Your task to perform on an android device: Open location settings Image 0: 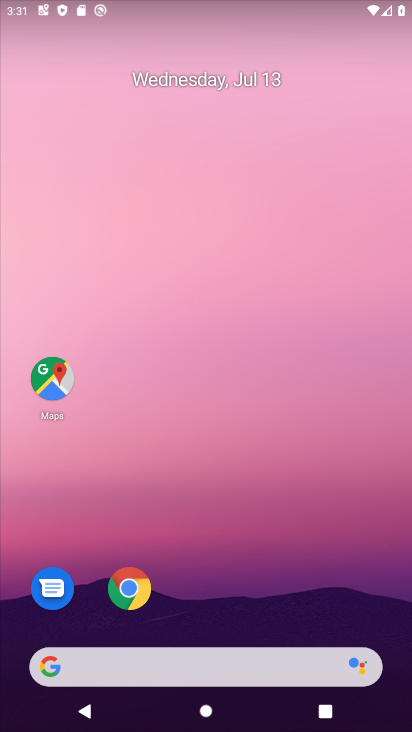
Step 0: click (254, 186)
Your task to perform on an android device: Open location settings Image 1: 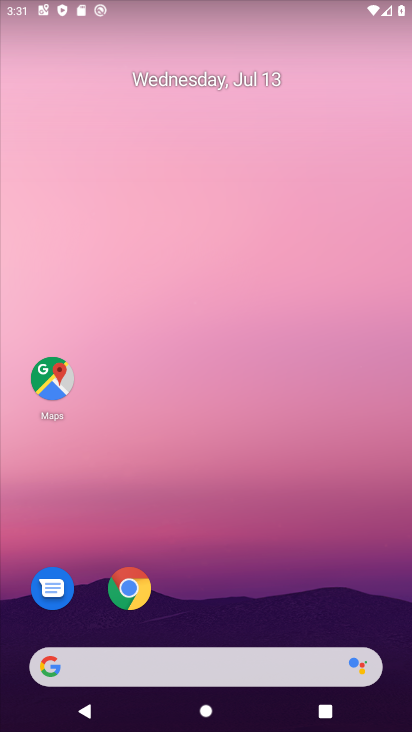
Step 1: drag from (257, 429) to (257, 128)
Your task to perform on an android device: Open location settings Image 2: 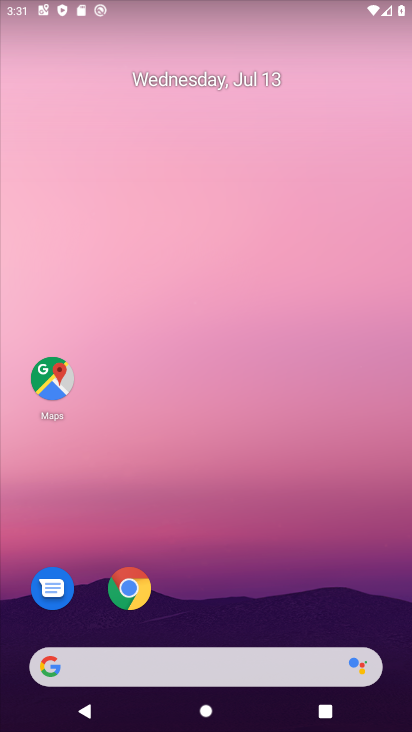
Step 2: drag from (253, 665) to (235, 208)
Your task to perform on an android device: Open location settings Image 3: 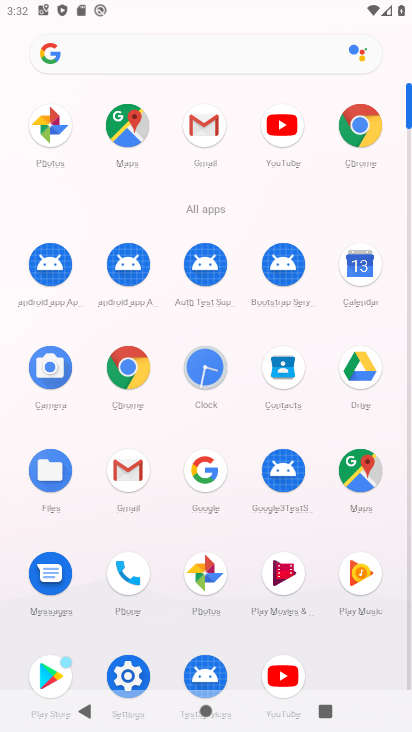
Step 3: click (124, 667)
Your task to perform on an android device: Open location settings Image 4: 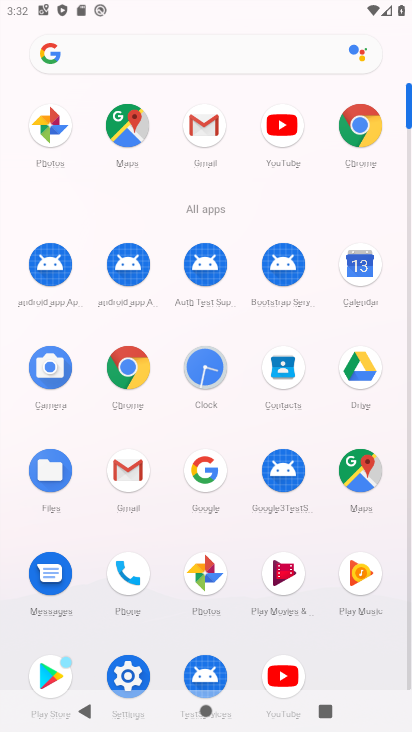
Step 4: click (122, 673)
Your task to perform on an android device: Open location settings Image 5: 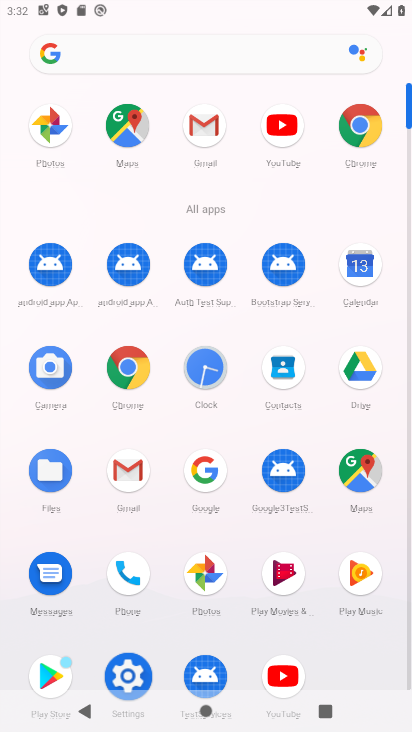
Step 5: click (124, 674)
Your task to perform on an android device: Open location settings Image 6: 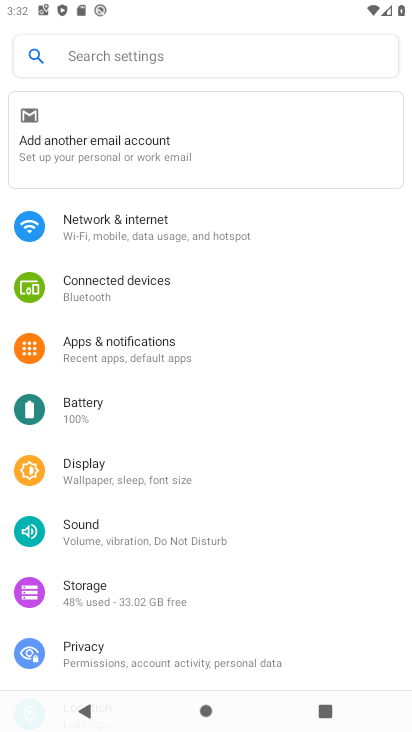
Step 6: click (130, 660)
Your task to perform on an android device: Open location settings Image 7: 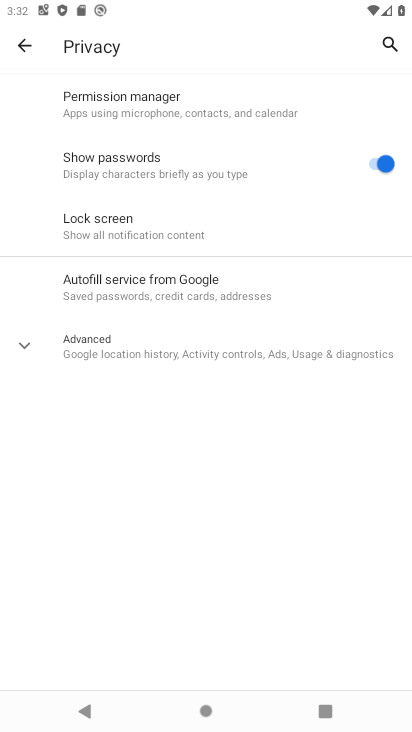
Step 7: click (23, 48)
Your task to perform on an android device: Open location settings Image 8: 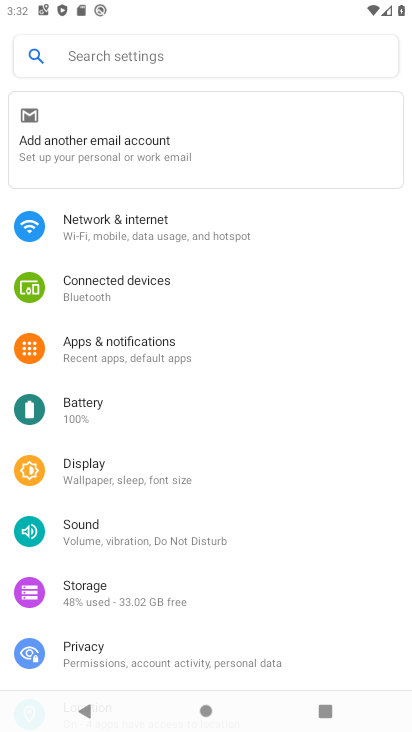
Step 8: drag from (166, 540) to (92, 264)
Your task to perform on an android device: Open location settings Image 9: 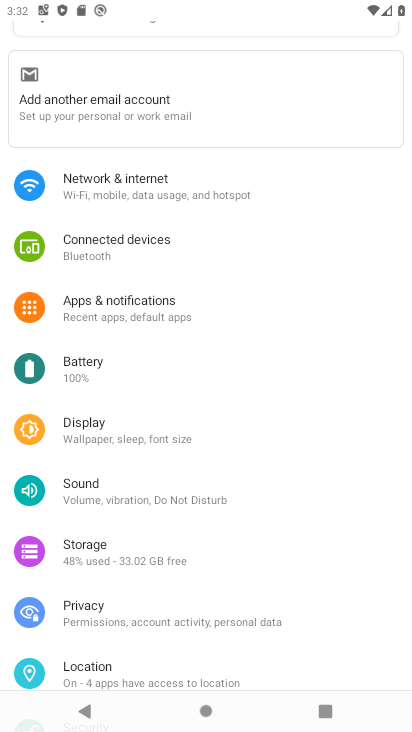
Step 9: click (93, 667)
Your task to perform on an android device: Open location settings Image 10: 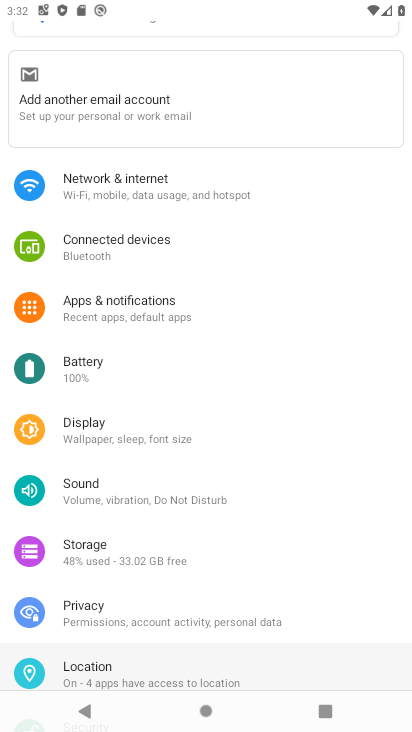
Step 10: click (93, 667)
Your task to perform on an android device: Open location settings Image 11: 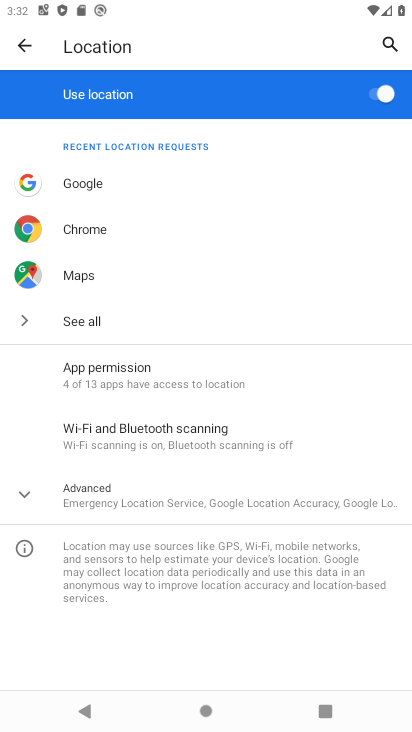
Step 11: task complete